Your task to perform on an android device: Go to privacy settings Image 0: 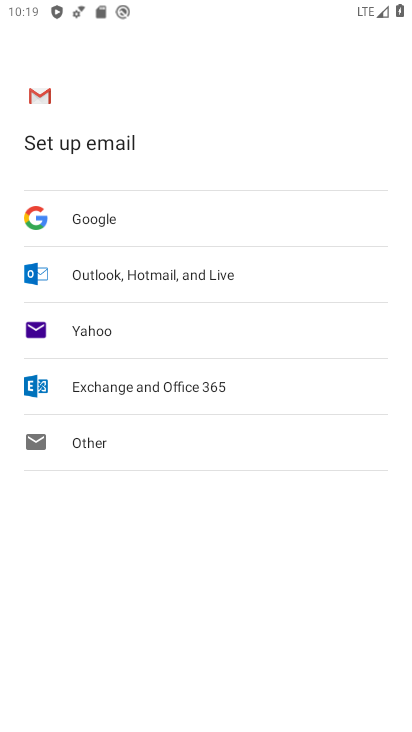
Step 0: press home button
Your task to perform on an android device: Go to privacy settings Image 1: 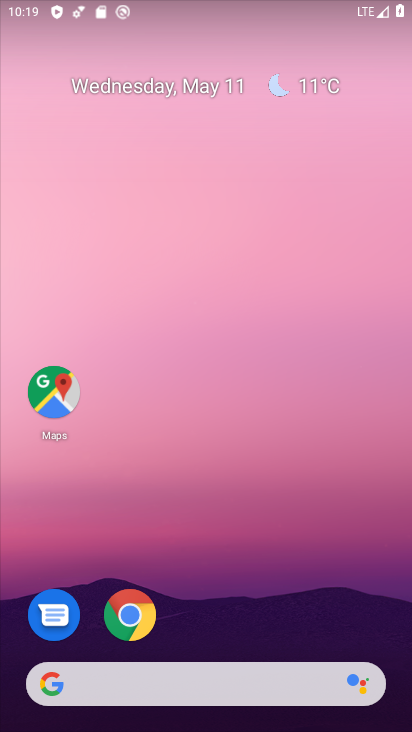
Step 1: drag from (262, 610) to (314, 124)
Your task to perform on an android device: Go to privacy settings Image 2: 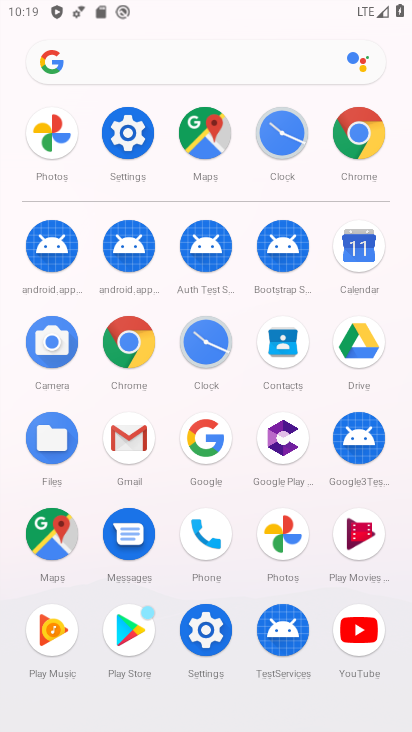
Step 2: click (123, 133)
Your task to perform on an android device: Go to privacy settings Image 3: 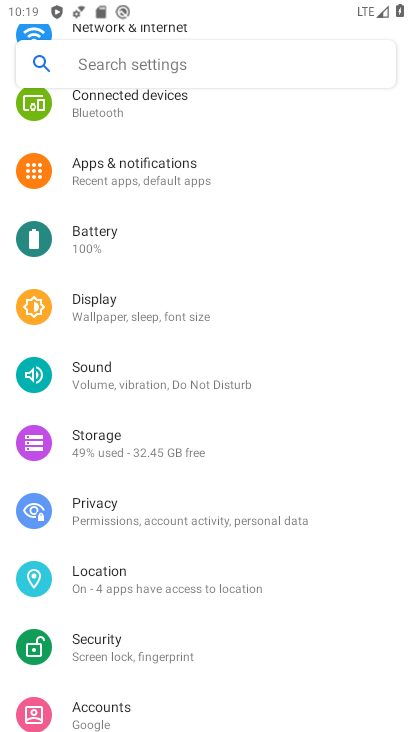
Step 3: drag from (182, 671) to (167, 119)
Your task to perform on an android device: Go to privacy settings Image 4: 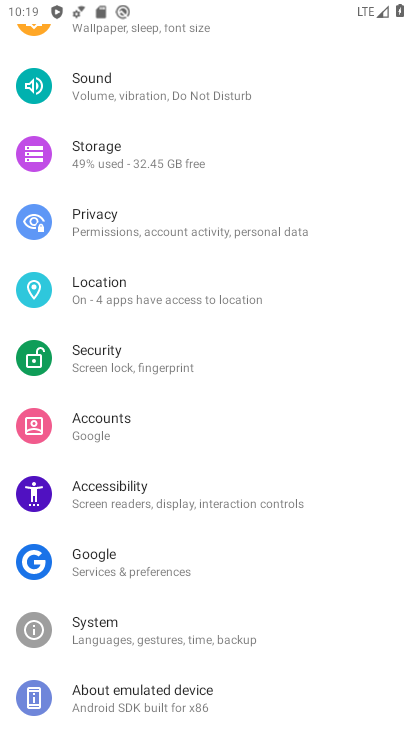
Step 4: click (120, 224)
Your task to perform on an android device: Go to privacy settings Image 5: 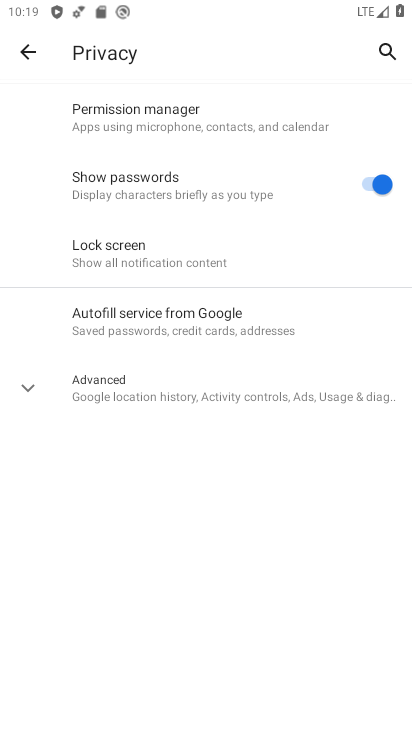
Step 5: task complete